Your task to perform on an android device: add a contact in the contacts app Image 0: 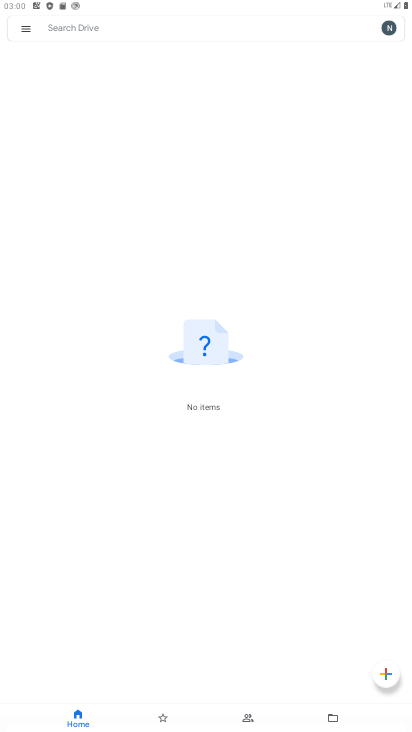
Step 0: press home button
Your task to perform on an android device: add a contact in the contacts app Image 1: 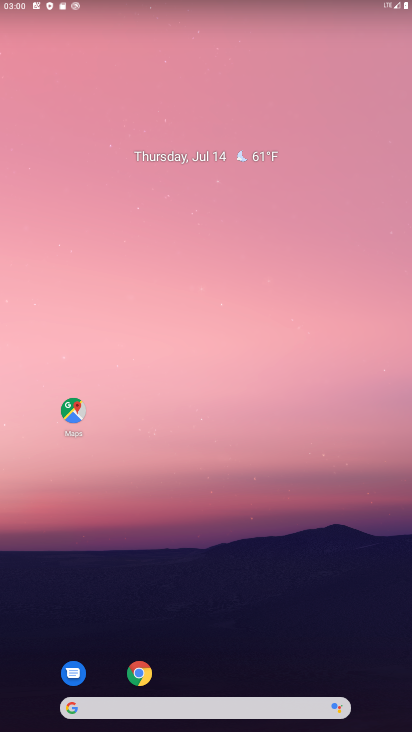
Step 1: drag from (201, 680) to (270, 144)
Your task to perform on an android device: add a contact in the contacts app Image 2: 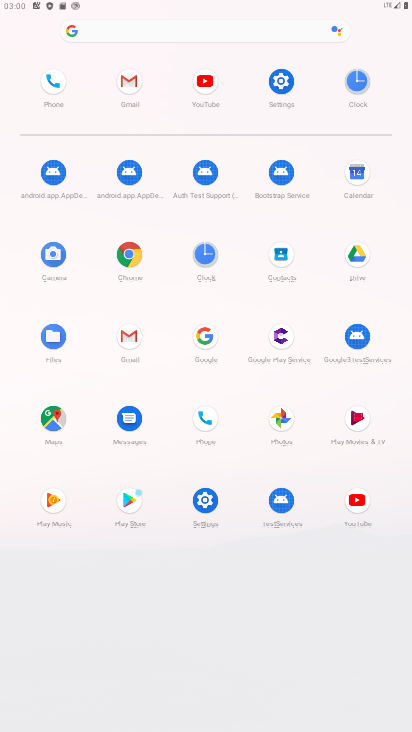
Step 2: click (197, 418)
Your task to perform on an android device: add a contact in the contacts app Image 3: 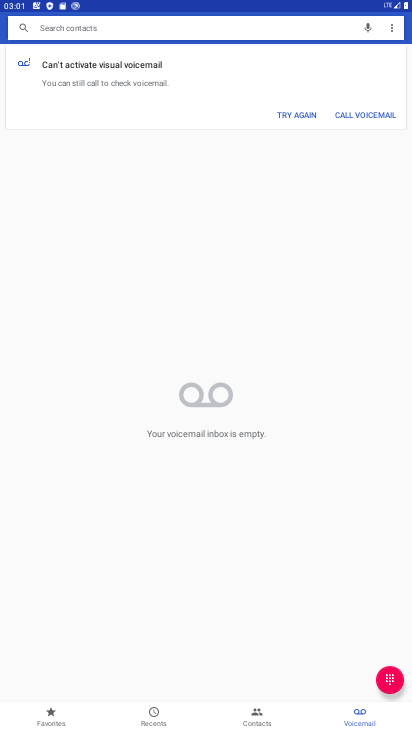
Step 3: click (257, 718)
Your task to perform on an android device: add a contact in the contacts app Image 4: 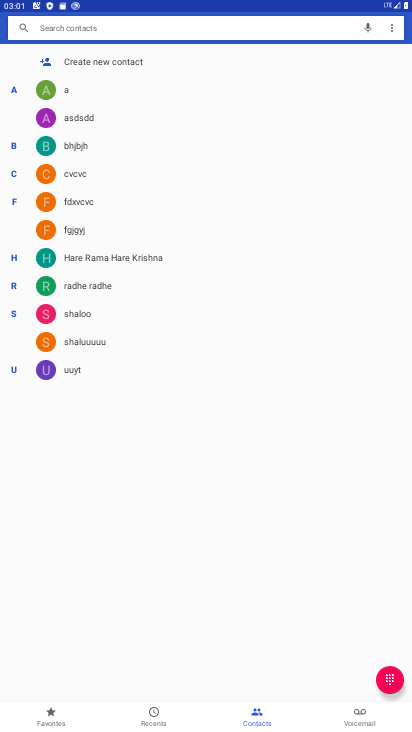
Step 4: click (163, 51)
Your task to perform on an android device: add a contact in the contacts app Image 5: 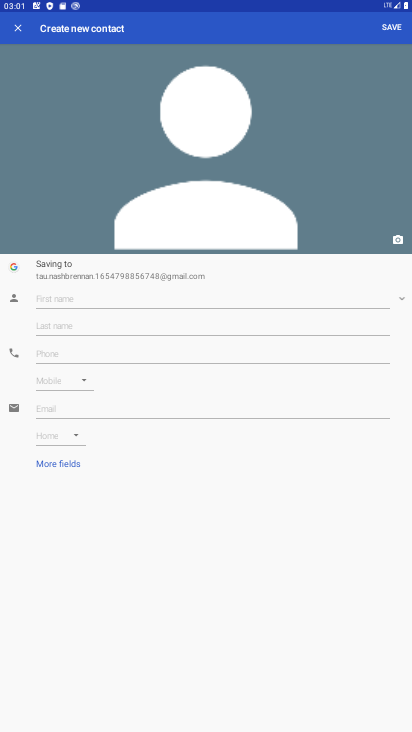
Step 5: click (64, 295)
Your task to perform on an android device: add a contact in the contacts app Image 6: 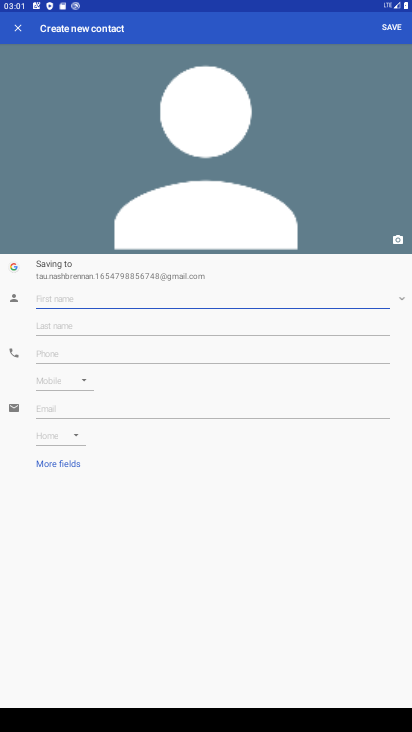
Step 6: type "poikjhgbvc"
Your task to perform on an android device: add a contact in the contacts app Image 7: 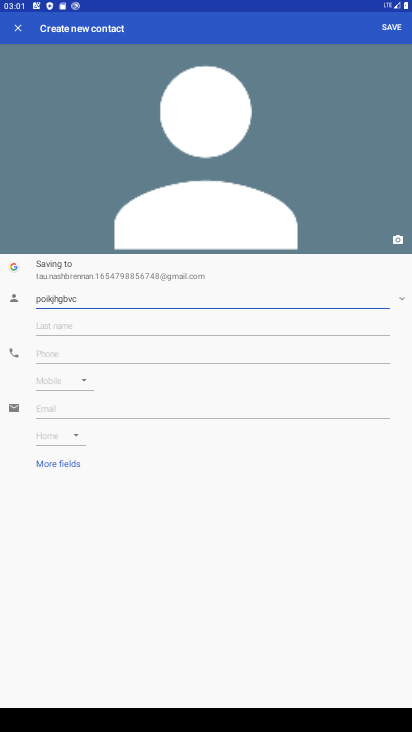
Step 7: click (55, 343)
Your task to perform on an android device: add a contact in the contacts app Image 8: 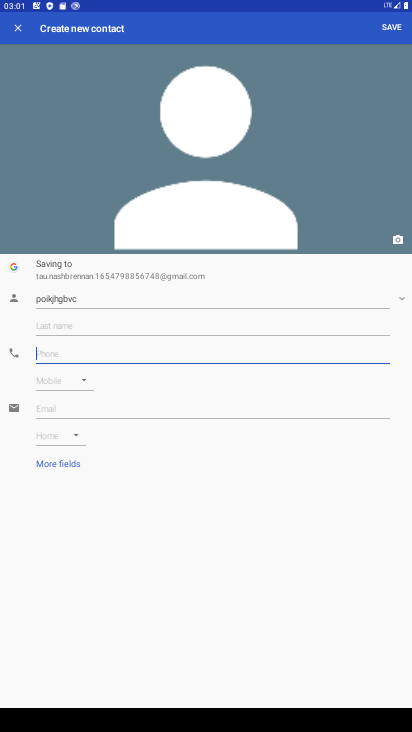
Step 8: type "234567890"
Your task to perform on an android device: add a contact in the contacts app Image 9: 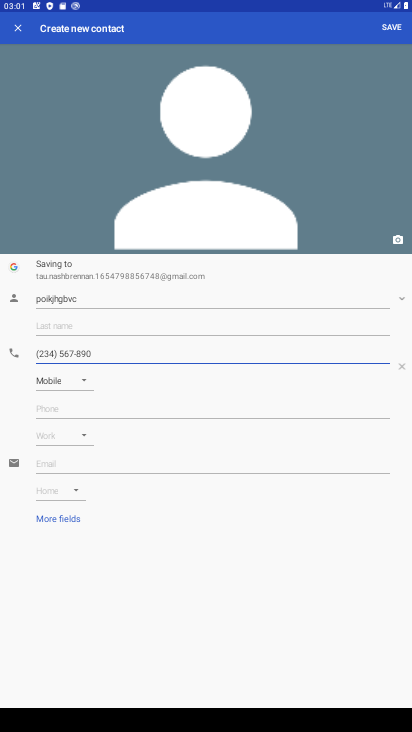
Step 9: click (400, 38)
Your task to perform on an android device: add a contact in the contacts app Image 10: 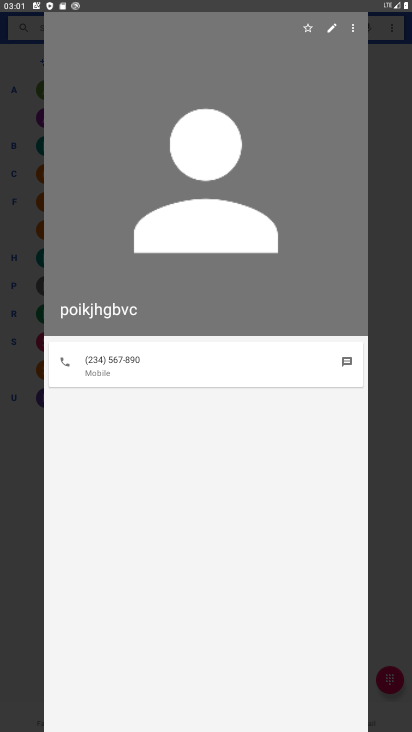
Step 10: task complete